Your task to perform on an android device: Add razer blade to the cart on costco.com Image 0: 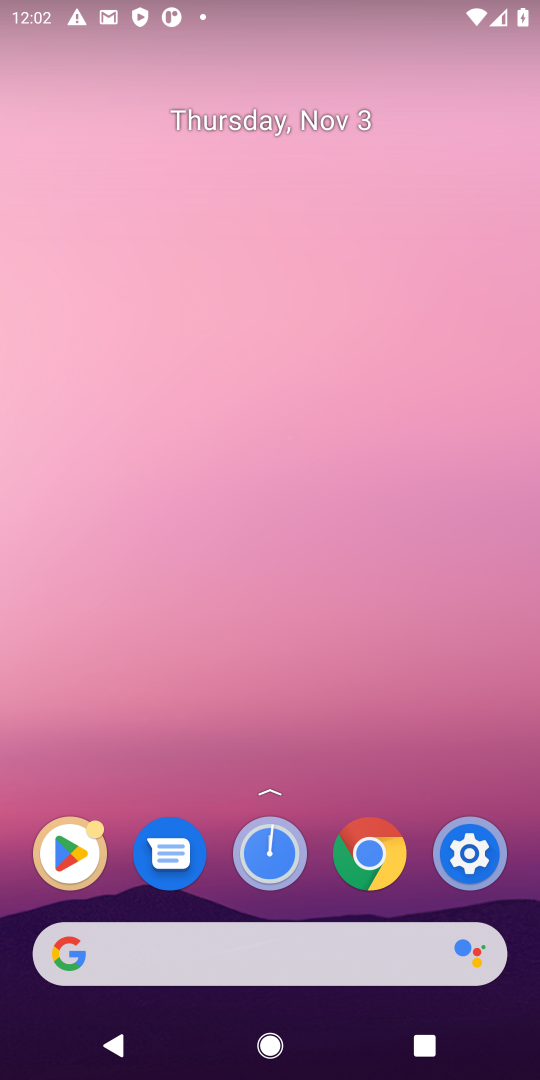
Step 0: click (391, 848)
Your task to perform on an android device: Add razer blade to the cart on costco.com Image 1: 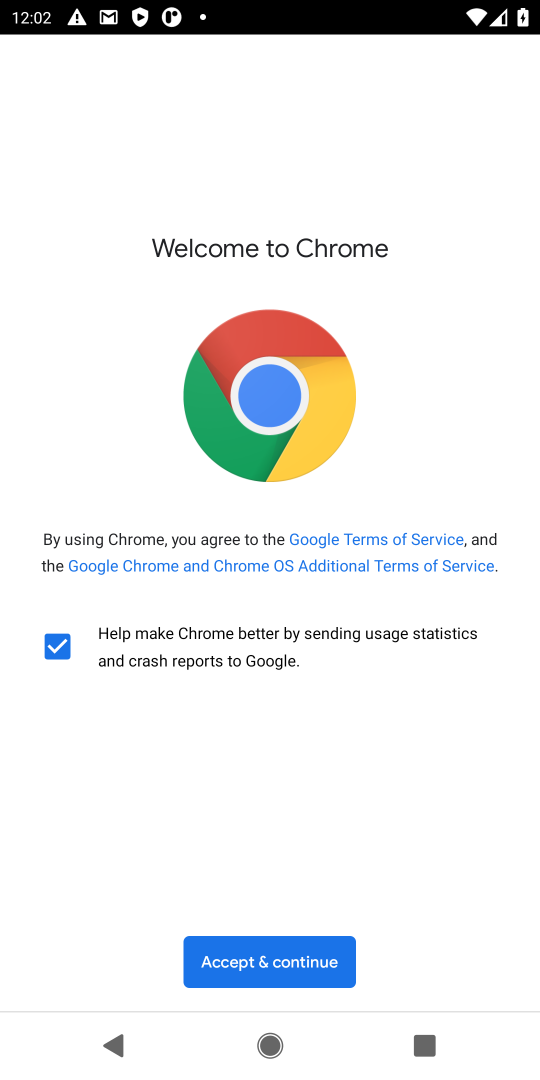
Step 1: click (315, 965)
Your task to perform on an android device: Add razer blade to the cart on costco.com Image 2: 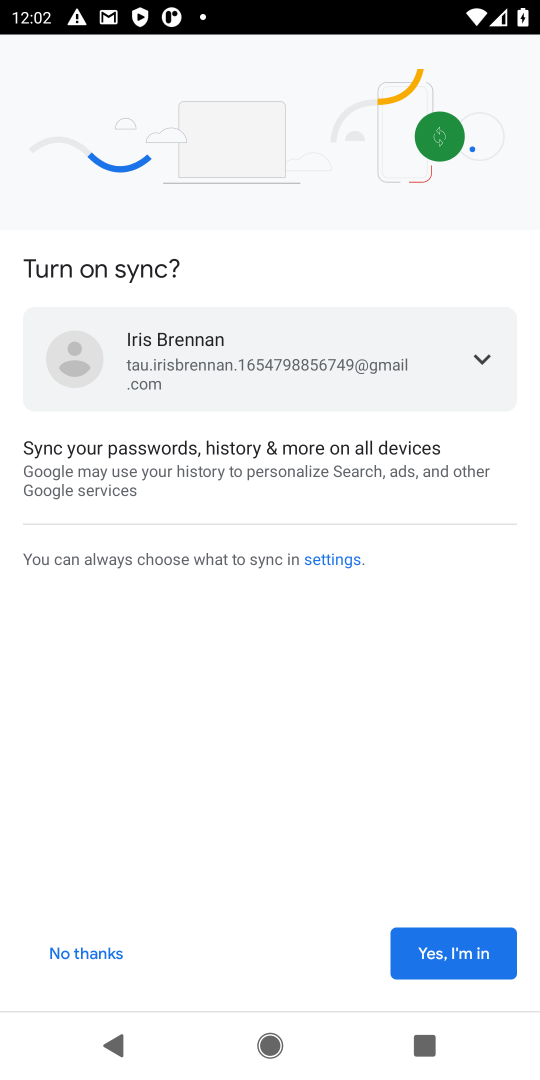
Step 2: click (474, 952)
Your task to perform on an android device: Add razer blade to the cart on costco.com Image 3: 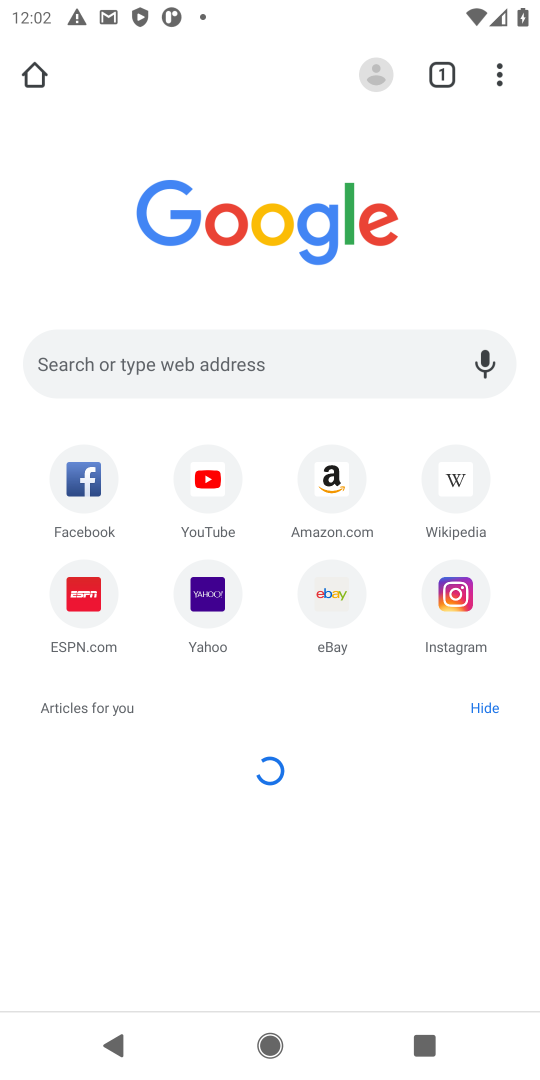
Step 3: click (297, 355)
Your task to perform on an android device: Add razer blade to the cart on costco.com Image 4: 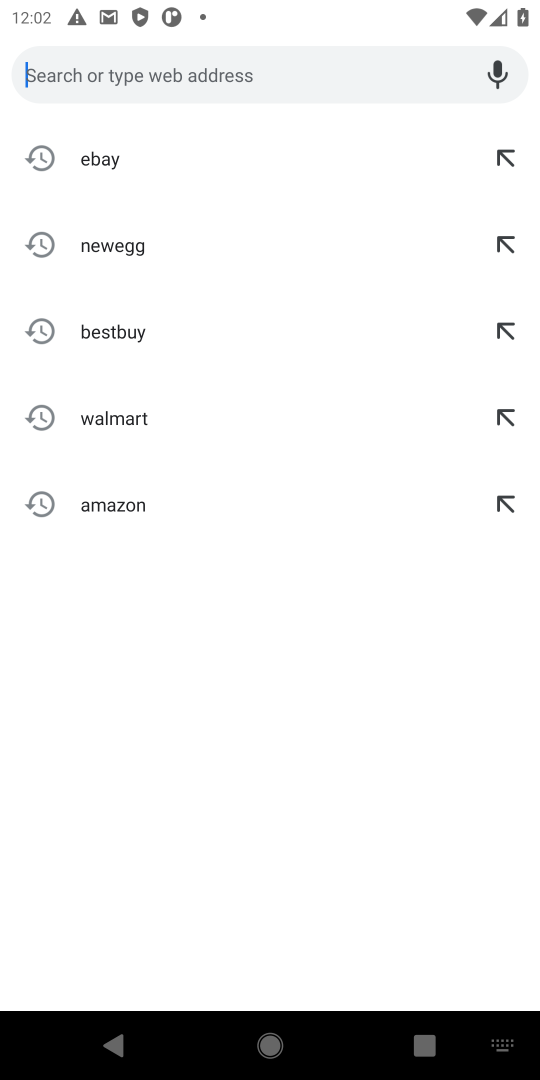
Step 4: type "costco.com"
Your task to perform on an android device: Add razer blade to the cart on costco.com Image 5: 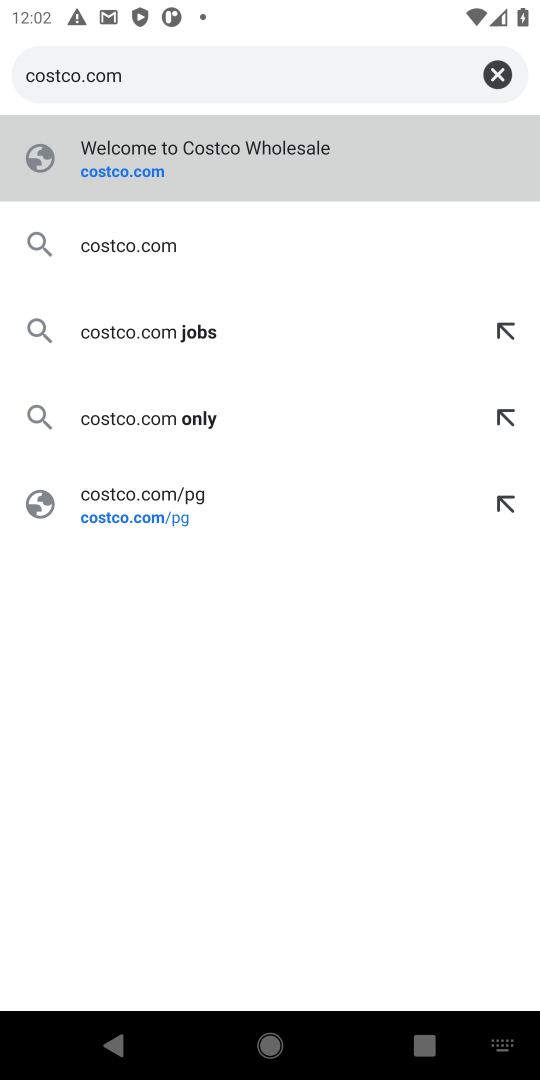
Step 5: press enter
Your task to perform on an android device: Add razer blade to the cart on costco.com Image 6: 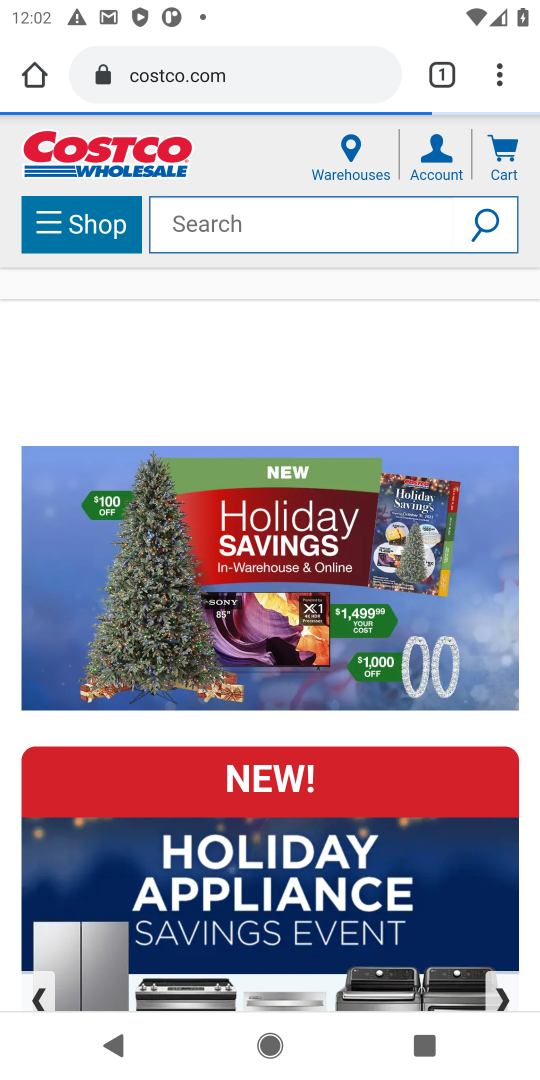
Step 6: click (300, 224)
Your task to perform on an android device: Add razer blade to the cart on costco.com Image 7: 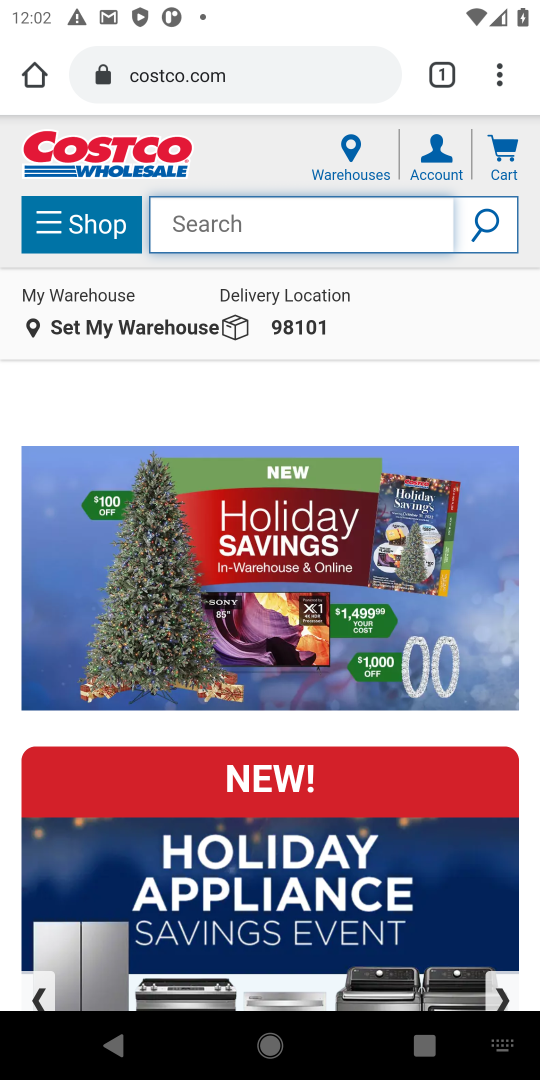
Step 7: type "razer blade"
Your task to perform on an android device: Add razer blade to the cart on costco.com Image 8: 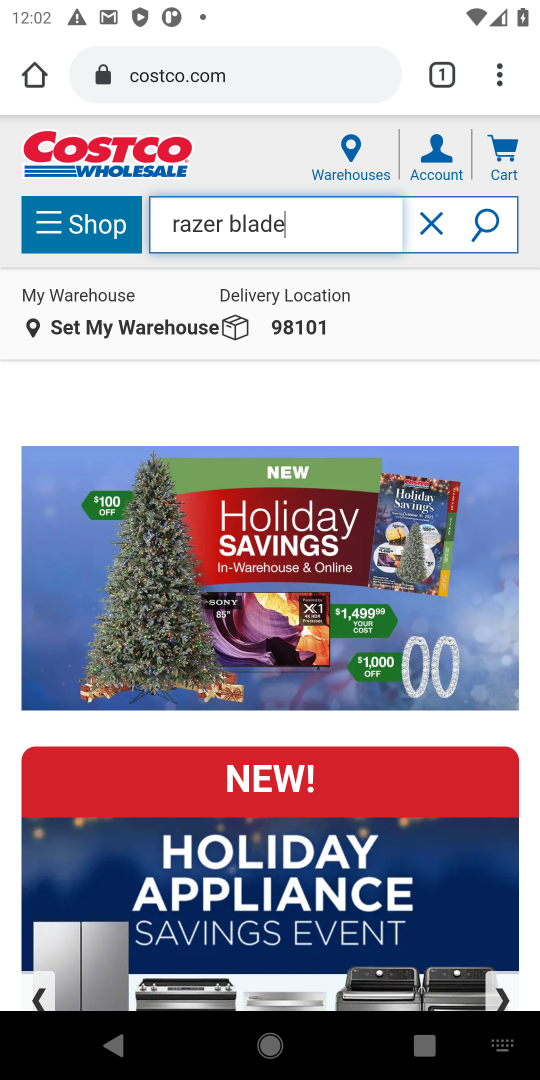
Step 8: press enter
Your task to perform on an android device: Add razer blade to the cart on costco.com Image 9: 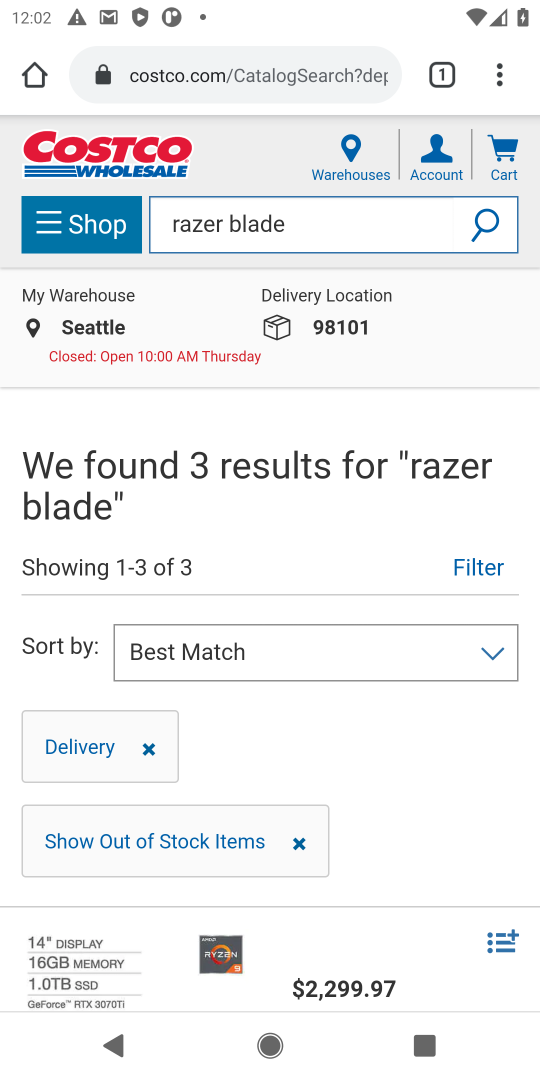
Step 9: drag from (414, 714) to (407, 353)
Your task to perform on an android device: Add razer blade to the cart on costco.com Image 10: 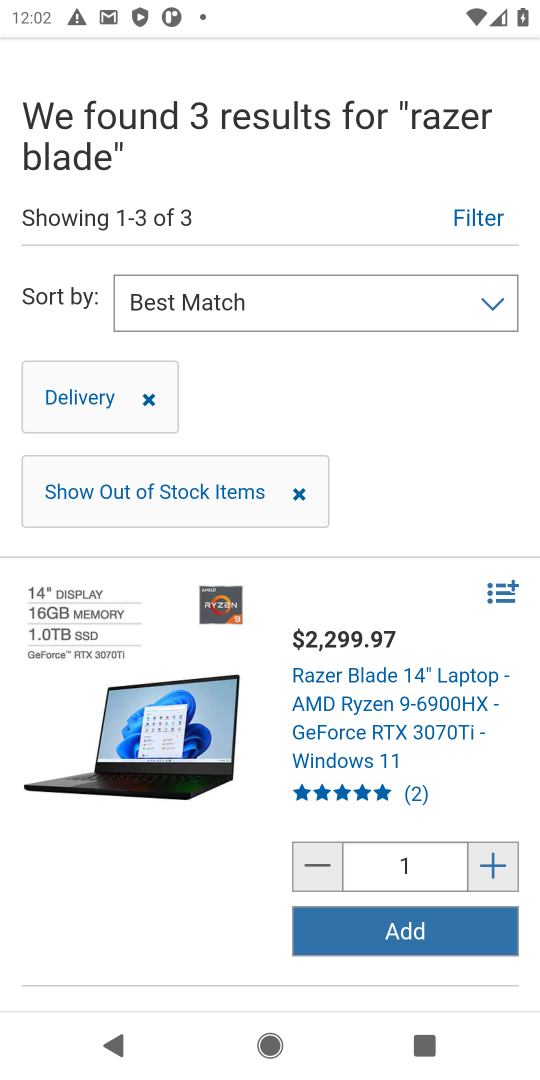
Step 10: drag from (324, 805) to (325, 352)
Your task to perform on an android device: Add razer blade to the cart on costco.com Image 11: 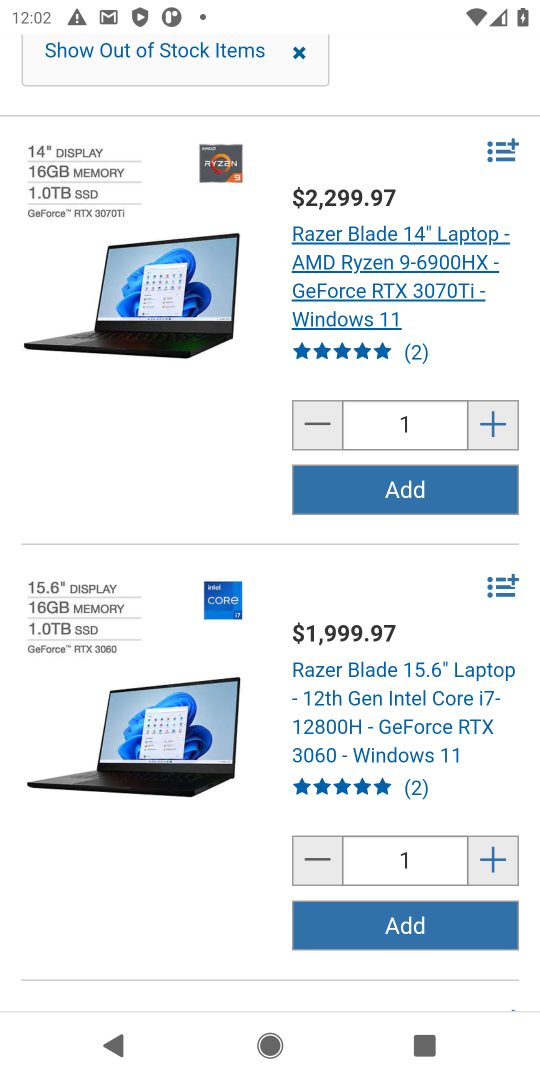
Step 11: click (183, 360)
Your task to perform on an android device: Add razer blade to the cart on costco.com Image 12: 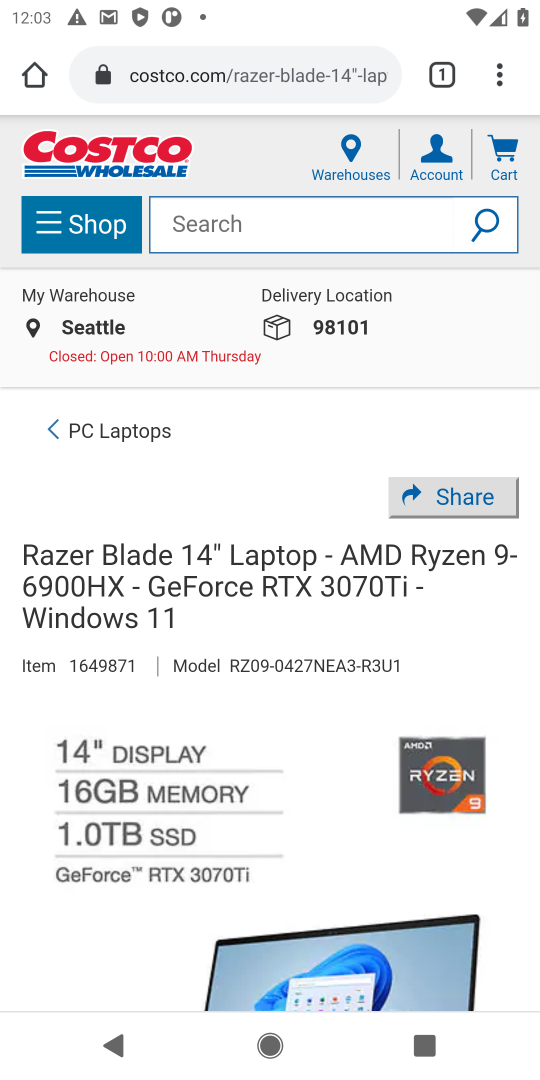
Step 12: drag from (401, 791) to (367, 243)
Your task to perform on an android device: Add razer blade to the cart on costco.com Image 13: 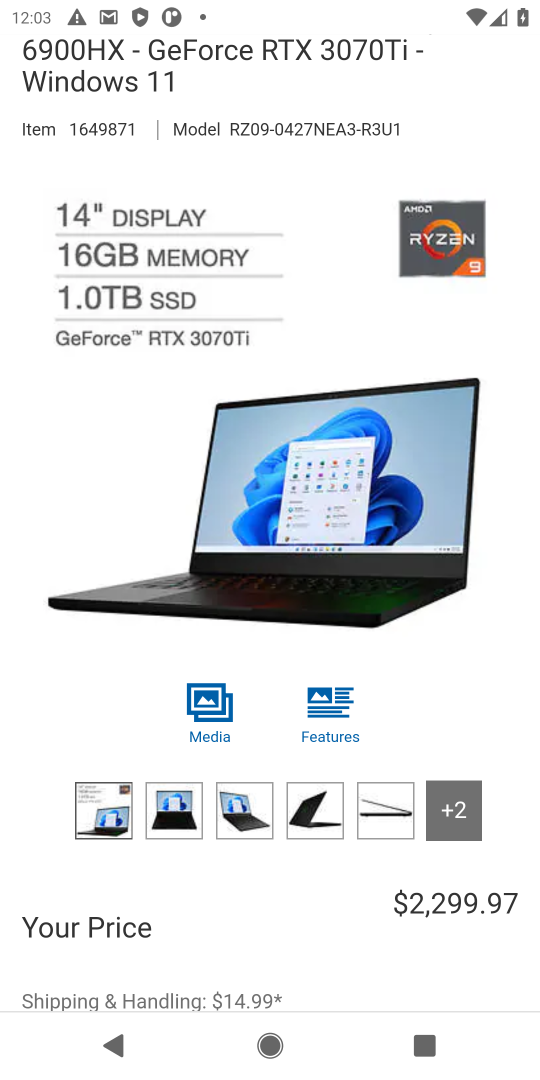
Step 13: drag from (429, 811) to (414, 298)
Your task to perform on an android device: Add razer blade to the cart on costco.com Image 14: 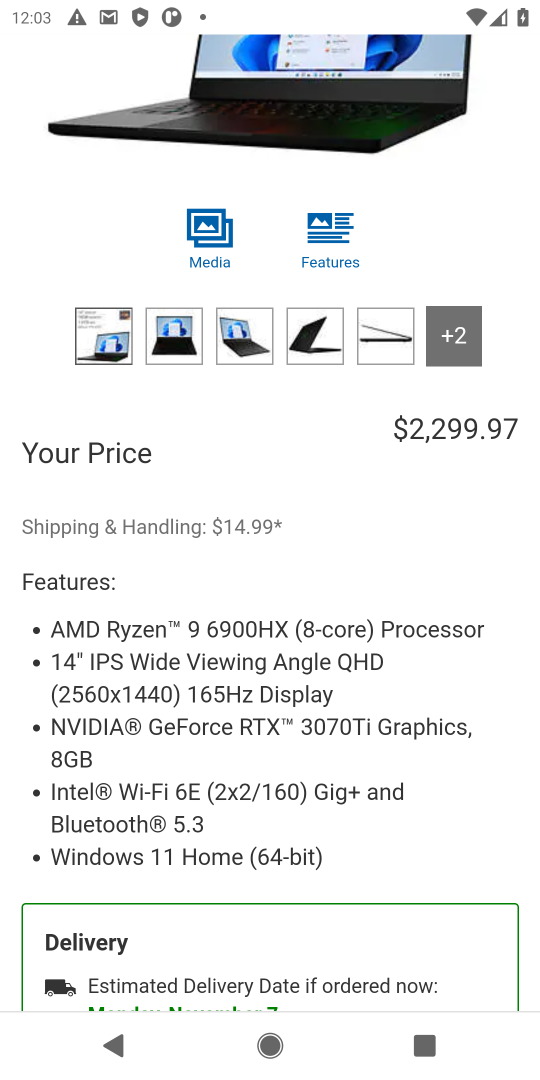
Step 14: drag from (441, 822) to (425, 324)
Your task to perform on an android device: Add razer blade to the cart on costco.com Image 15: 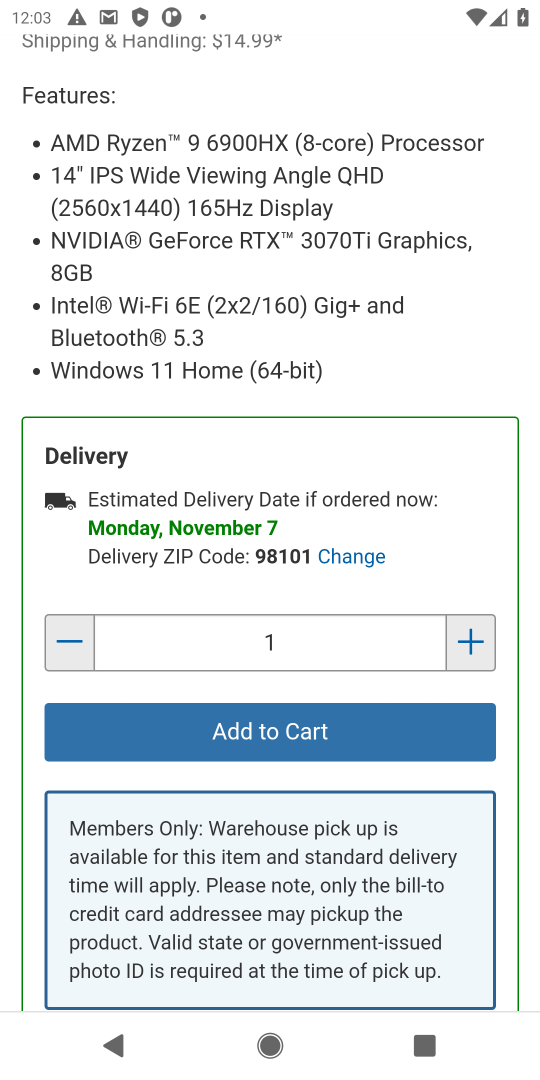
Step 15: click (287, 737)
Your task to perform on an android device: Add razer blade to the cart on costco.com Image 16: 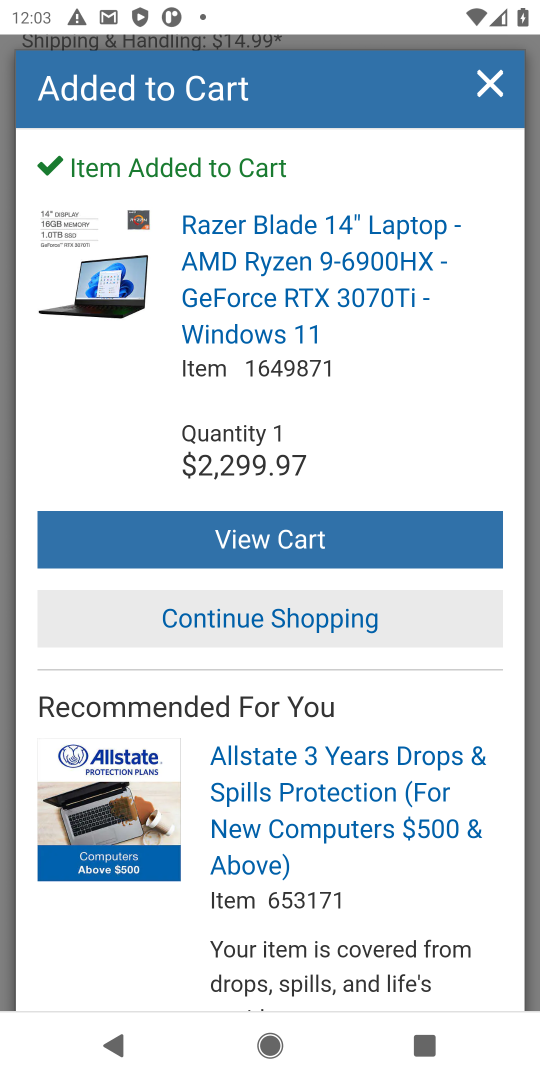
Step 16: task complete